Your task to perform on an android device: see tabs open on other devices in the chrome app Image 0: 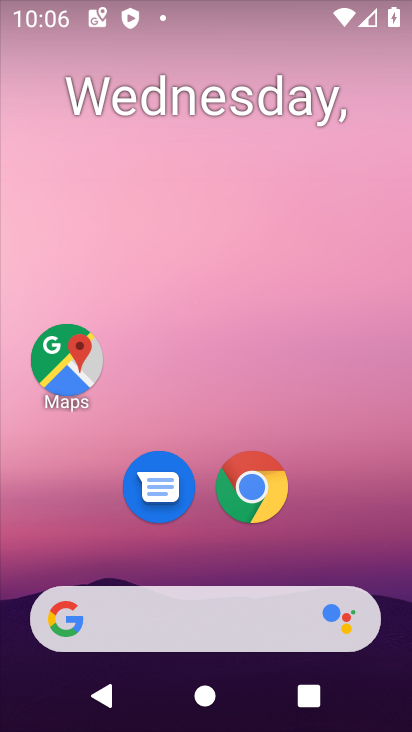
Step 0: drag from (132, 637) to (163, 0)
Your task to perform on an android device: see tabs open on other devices in the chrome app Image 1: 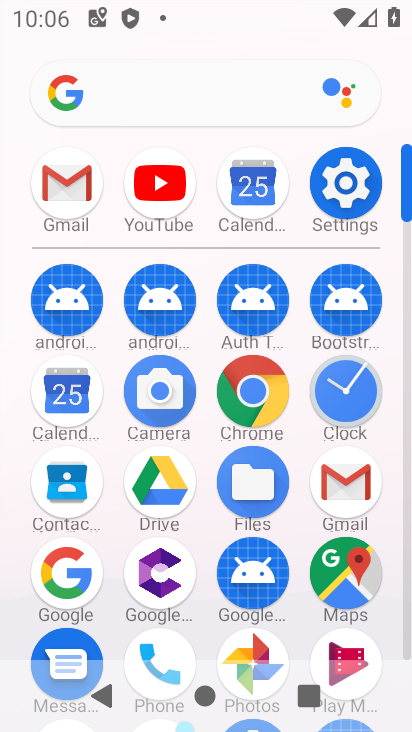
Step 1: click (246, 395)
Your task to perform on an android device: see tabs open on other devices in the chrome app Image 2: 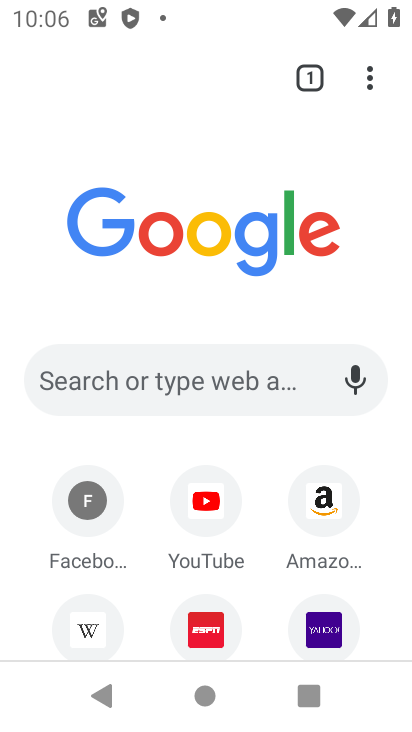
Step 2: click (366, 71)
Your task to perform on an android device: see tabs open on other devices in the chrome app Image 3: 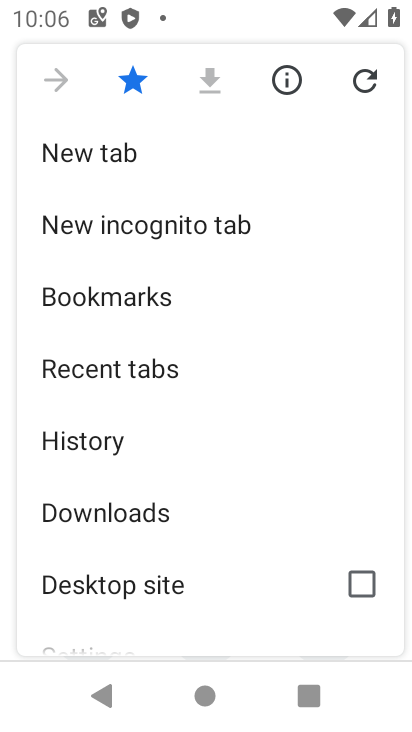
Step 3: click (137, 359)
Your task to perform on an android device: see tabs open on other devices in the chrome app Image 4: 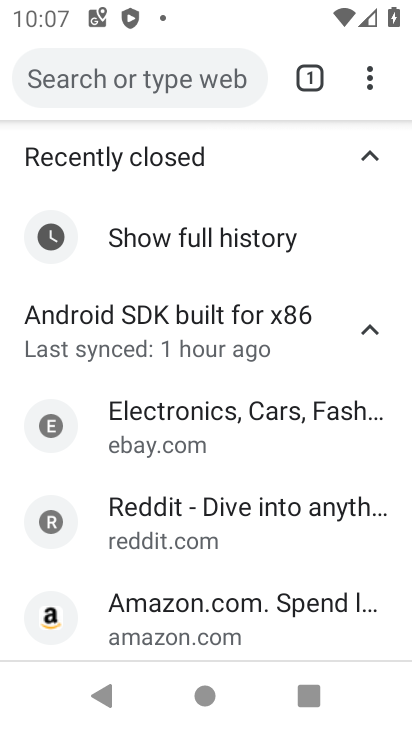
Step 4: task complete